Your task to perform on an android device: toggle pop-ups in chrome Image 0: 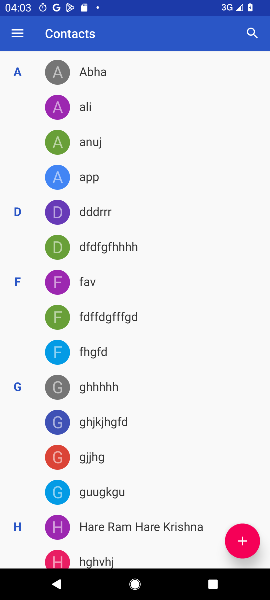
Step 0: press home button
Your task to perform on an android device: toggle pop-ups in chrome Image 1: 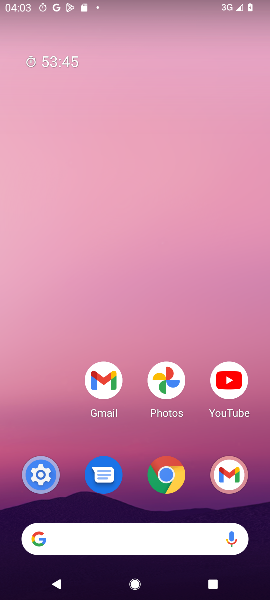
Step 1: drag from (51, 422) to (51, 255)
Your task to perform on an android device: toggle pop-ups in chrome Image 2: 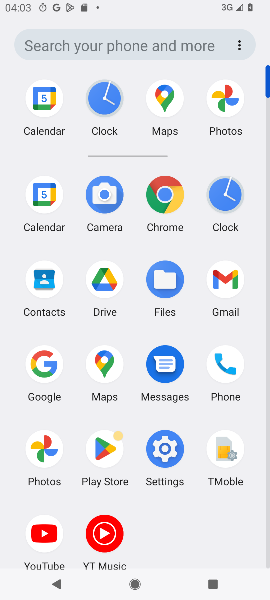
Step 2: click (168, 196)
Your task to perform on an android device: toggle pop-ups in chrome Image 3: 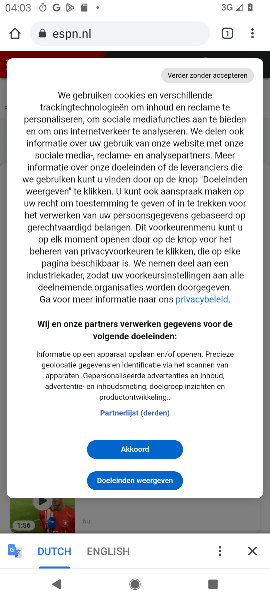
Step 3: click (252, 36)
Your task to perform on an android device: toggle pop-ups in chrome Image 4: 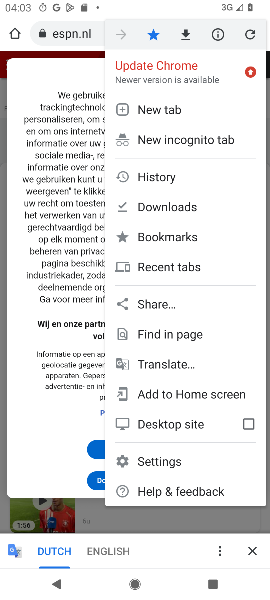
Step 4: click (171, 464)
Your task to perform on an android device: toggle pop-ups in chrome Image 5: 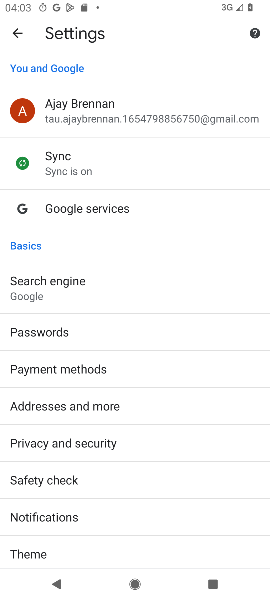
Step 5: drag from (200, 437) to (198, 347)
Your task to perform on an android device: toggle pop-ups in chrome Image 6: 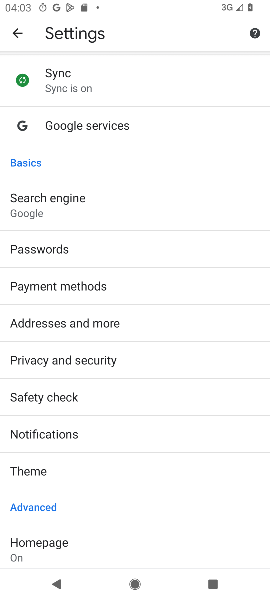
Step 6: drag from (192, 461) to (189, 383)
Your task to perform on an android device: toggle pop-ups in chrome Image 7: 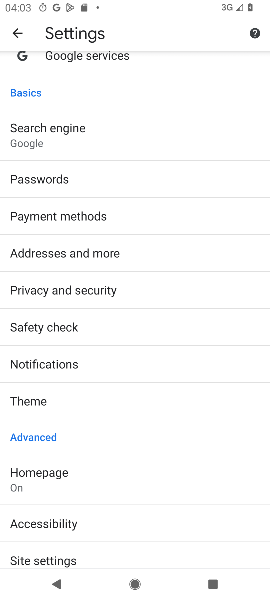
Step 7: drag from (173, 488) to (181, 374)
Your task to perform on an android device: toggle pop-ups in chrome Image 8: 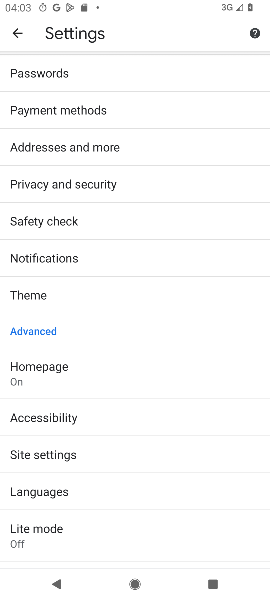
Step 8: drag from (173, 499) to (172, 395)
Your task to perform on an android device: toggle pop-ups in chrome Image 9: 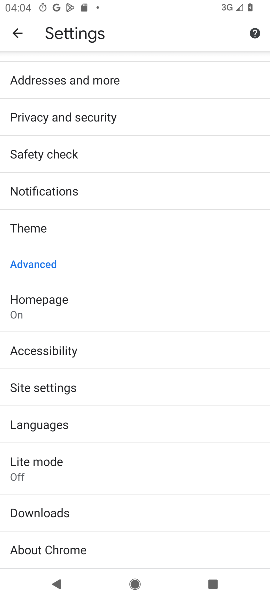
Step 9: drag from (184, 489) to (179, 387)
Your task to perform on an android device: toggle pop-ups in chrome Image 10: 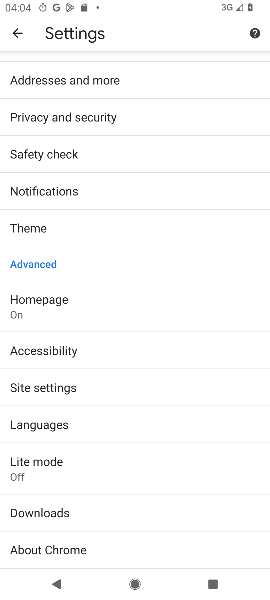
Step 10: click (142, 385)
Your task to perform on an android device: toggle pop-ups in chrome Image 11: 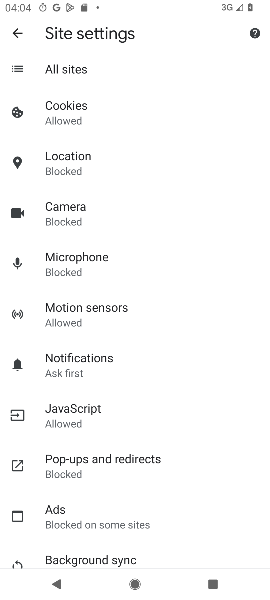
Step 11: drag from (196, 424) to (199, 338)
Your task to perform on an android device: toggle pop-ups in chrome Image 12: 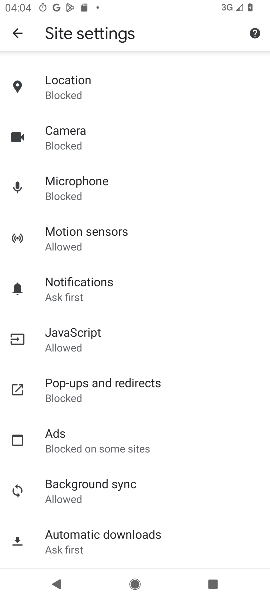
Step 12: drag from (199, 453) to (209, 353)
Your task to perform on an android device: toggle pop-ups in chrome Image 13: 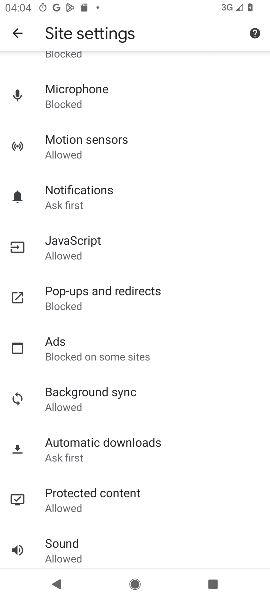
Step 13: drag from (209, 459) to (210, 338)
Your task to perform on an android device: toggle pop-ups in chrome Image 14: 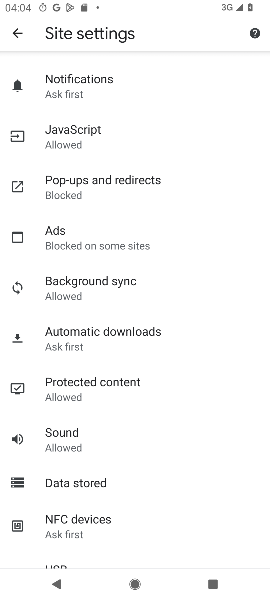
Step 14: click (159, 196)
Your task to perform on an android device: toggle pop-ups in chrome Image 15: 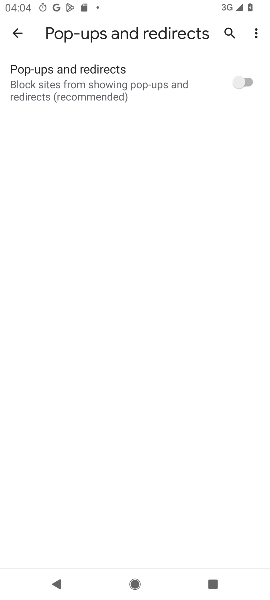
Step 15: click (237, 87)
Your task to perform on an android device: toggle pop-ups in chrome Image 16: 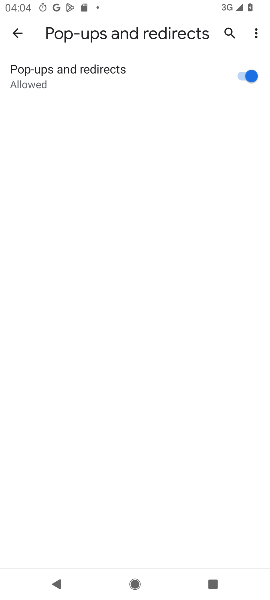
Step 16: task complete